Your task to perform on an android device: all mails in gmail Image 0: 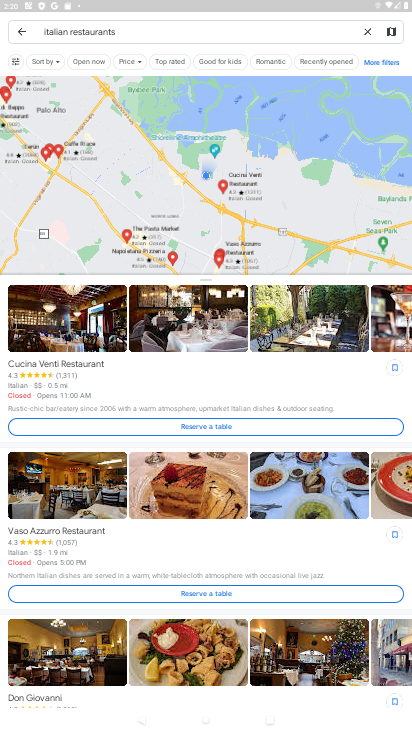
Step 0: press home button
Your task to perform on an android device: all mails in gmail Image 1: 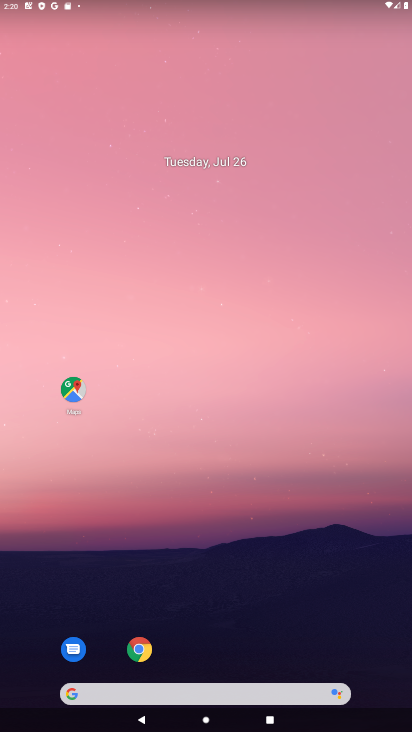
Step 1: drag from (185, 685) to (222, 120)
Your task to perform on an android device: all mails in gmail Image 2: 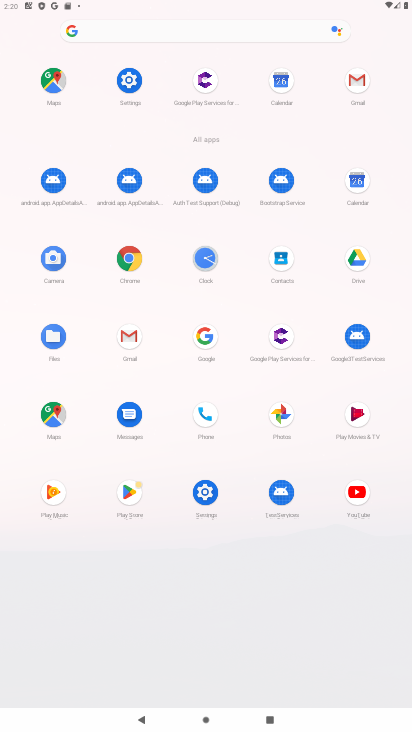
Step 2: click (126, 338)
Your task to perform on an android device: all mails in gmail Image 3: 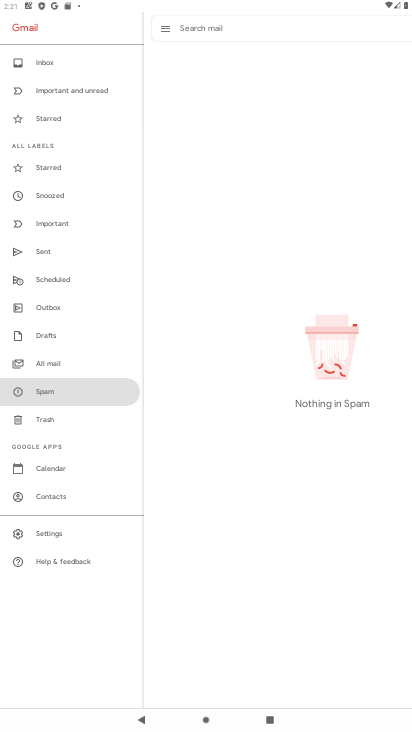
Step 3: click (53, 359)
Your task to perform on an android device: all mails in gmail Image 4: 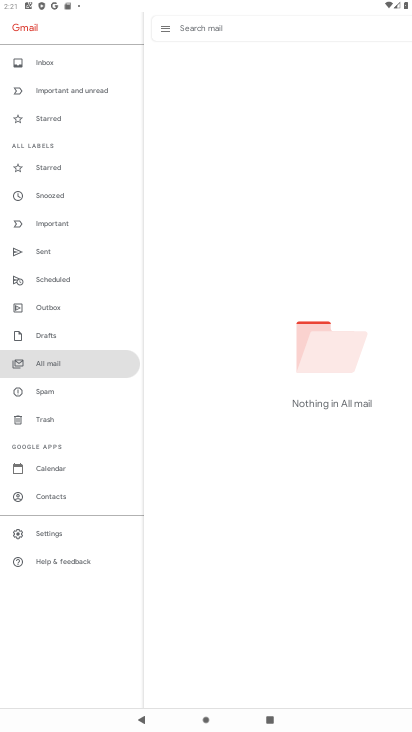
Step 4: task complete